Your task to perform on an android device: turn on location history Image 0: 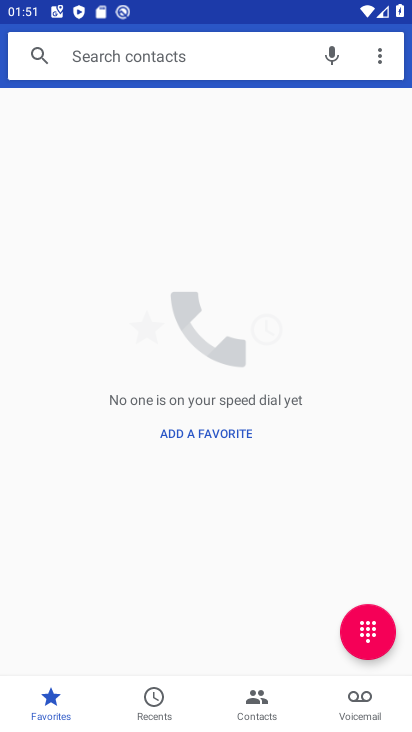
Step 0: press home button
Your task to perform on an android device: turn on location history Image 1: 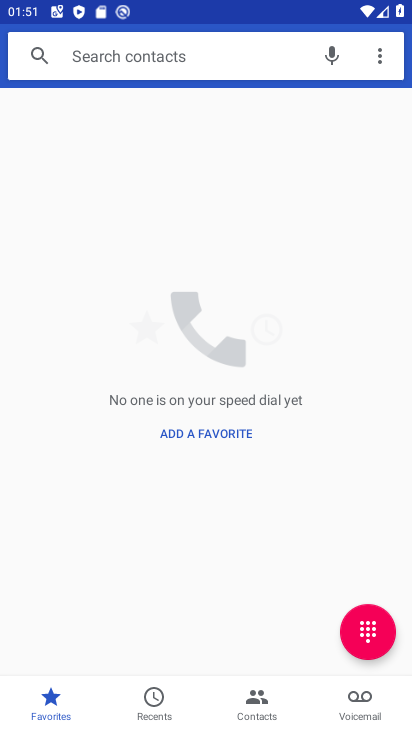
Step 1: press home button
Your task to perform on an android device: turn on location history Image 2: 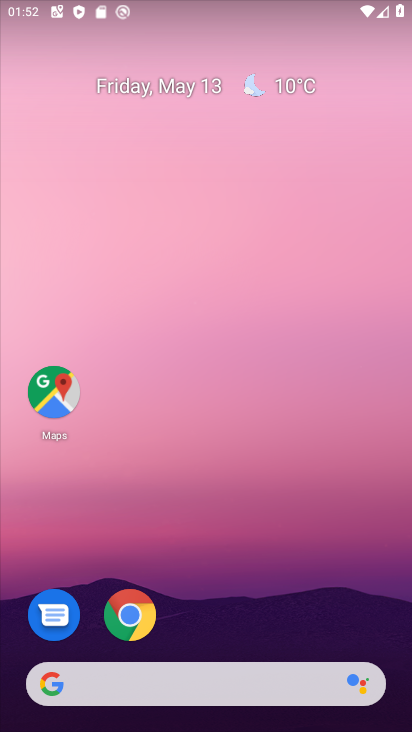
Step 2: drag from (189, 615) to (182, 124)
Your task to perform on an android device: turn on location history Image 3: 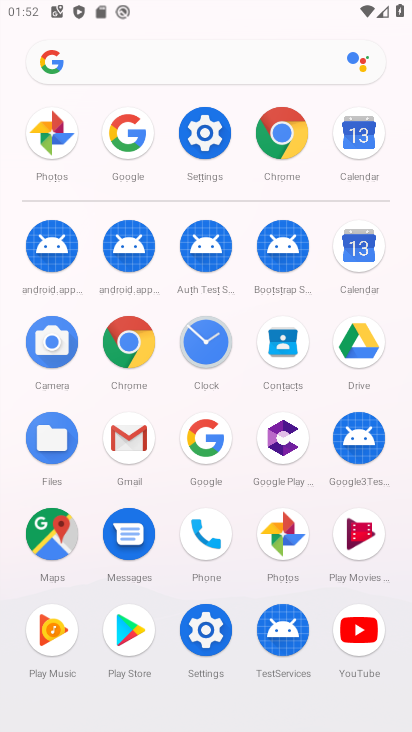
Step 3: click (225, 648)
Your task to perform on an android device: turn on location history Image 4: 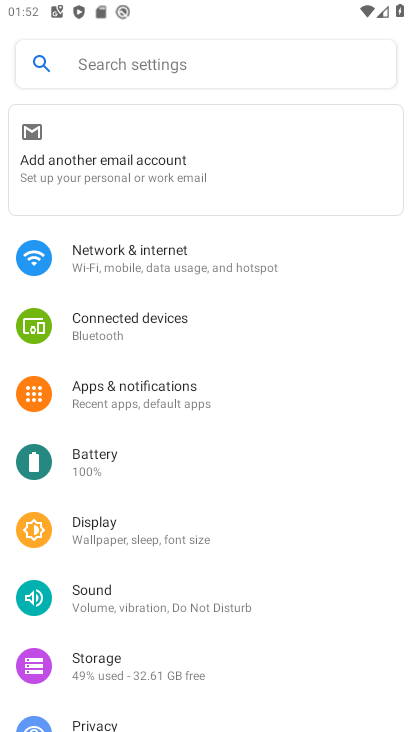
Step 4: drag from (147, 673) to (121, 302)
Your task to perform on an android device: turn on location history Image 5: 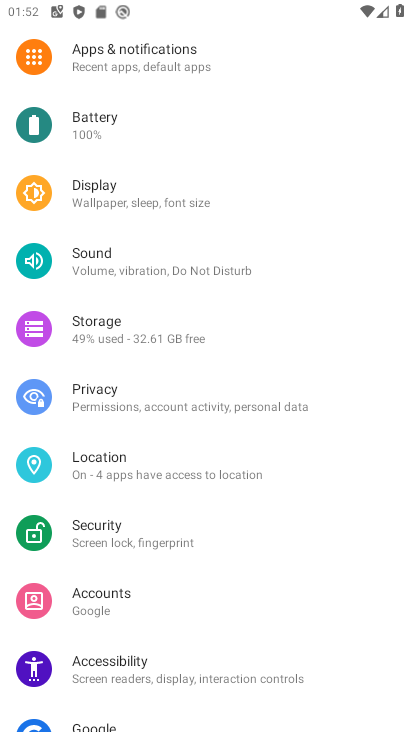
Step 5: click (126, 464)
Your task to perform on an android device: turn on location history Image 6: 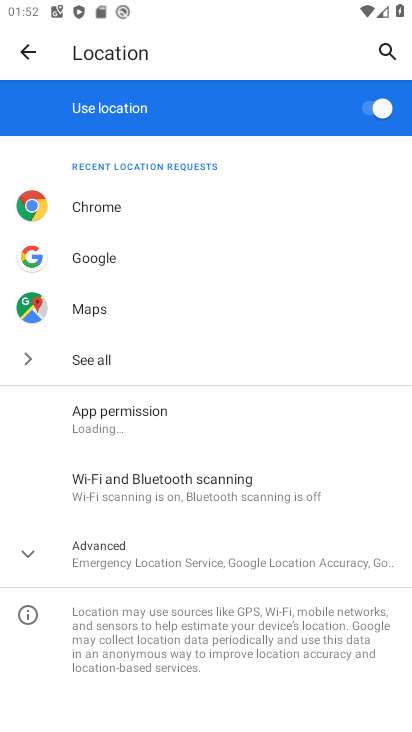
Step 6: click (135, 552)
Your task to perform on an android device: turn on location history Image 7: 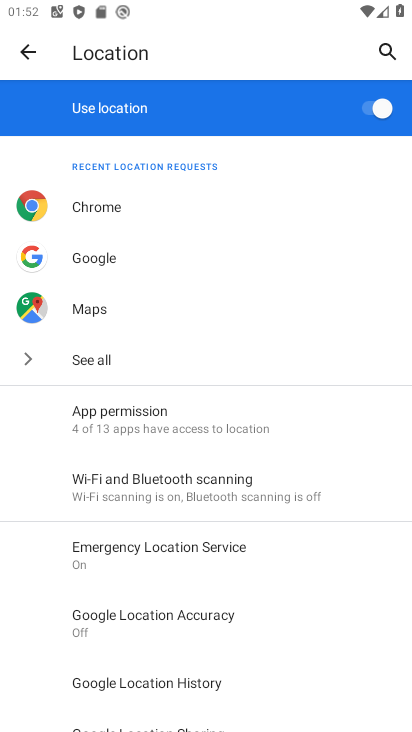
Step 7: click (105, 683)
Your task to perform on an android device: turn on location history Image 8: 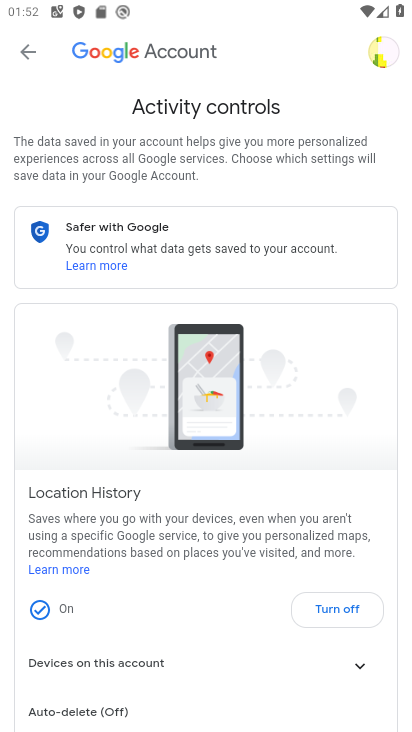
Step 8: task complete